Your task to perform on an android device: turn on location history Image 0: 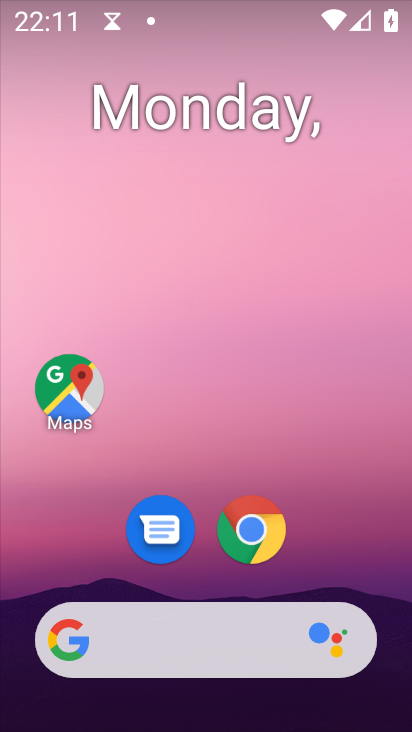
Step 0: drag from (324, 563) to (187, 242)
Your task to perform on an android device: turn on location history Image 1: 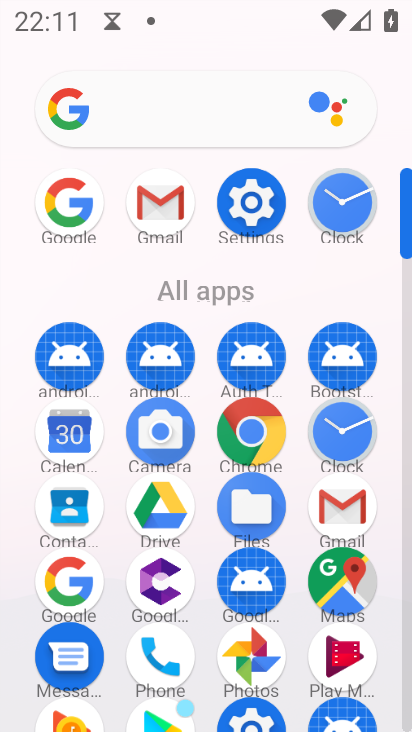
Step 1: click (252, 201)
Your task to perform on an android device: turn on location history Image 2: 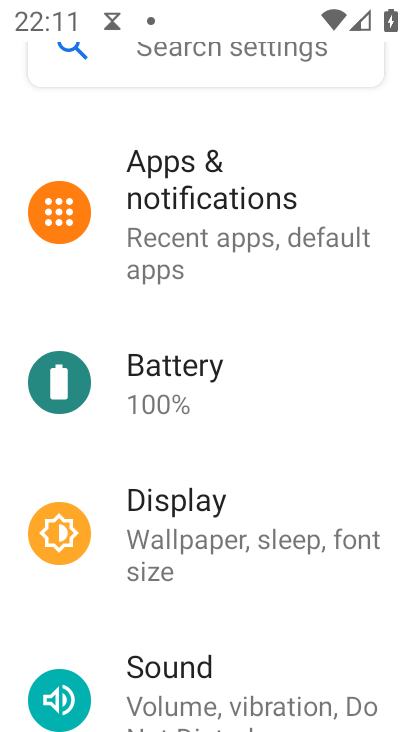
Step 2: drag from (234, 593) to (292, 487)
Your task to perform on an android device: turn on location history Image 3: 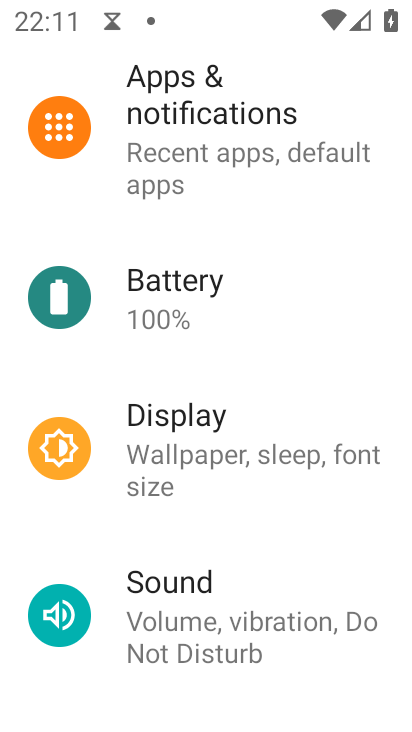
Step 3: drag from (240, 677) to (324, 539)
Your task to perform on an android device: turn on location history Image 4: 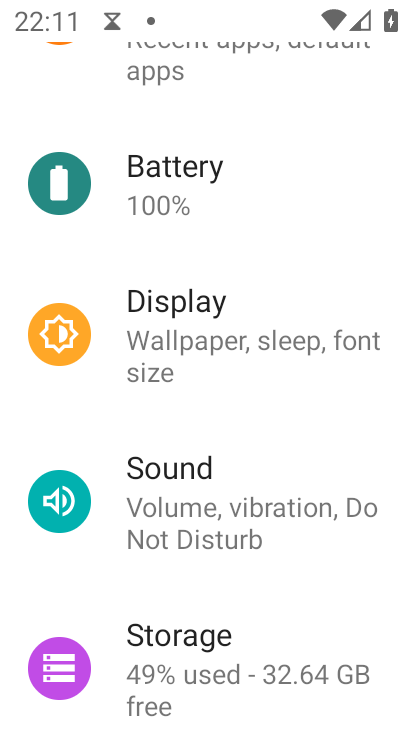
Step 4: drag from (229, 702) to (288, 545)
Your task to perform on an android device: turn on location history Image 5: 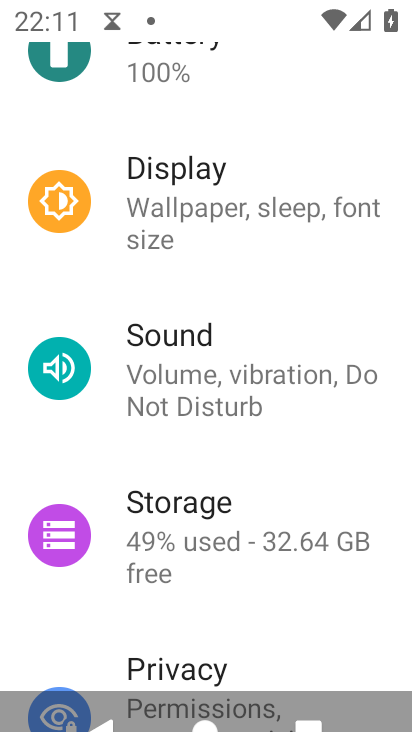
Step 5: drag from (239, 574) to (293, 485)
Your task to perform on an android device: turn on location history Image 6: 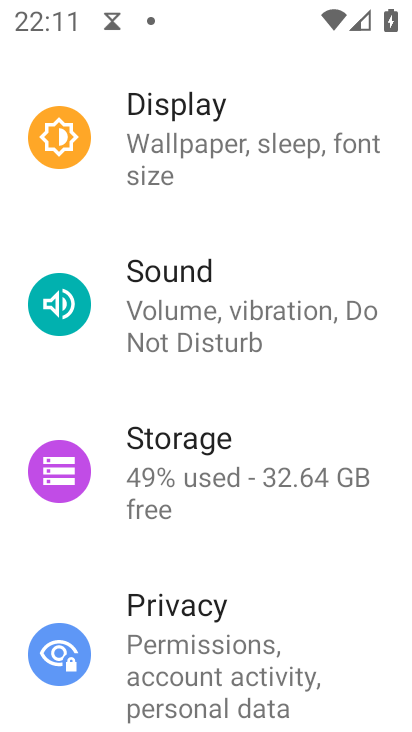
Step 6: drag from (217, 567) to (277, 441)
Your task to perform on an android device: turn on location history Image 7: 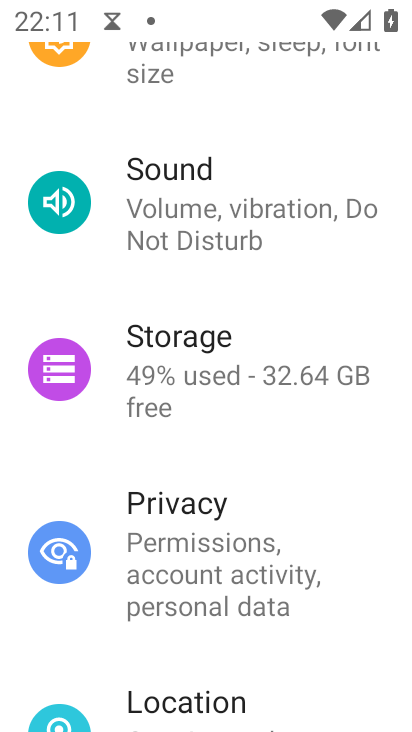
Step 7: drag from (209, 634) to (250, 494)
Your task to perform on an android device: turn on location history Image 8: 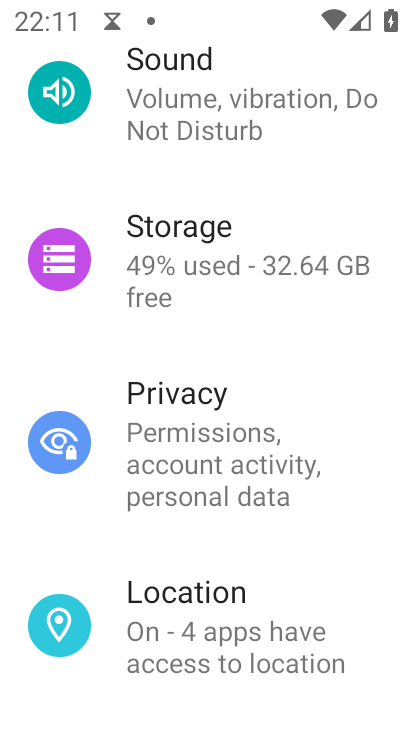
Step 8: click (200, 607)
Your task to perform on an android device: turn on location history Image 9: 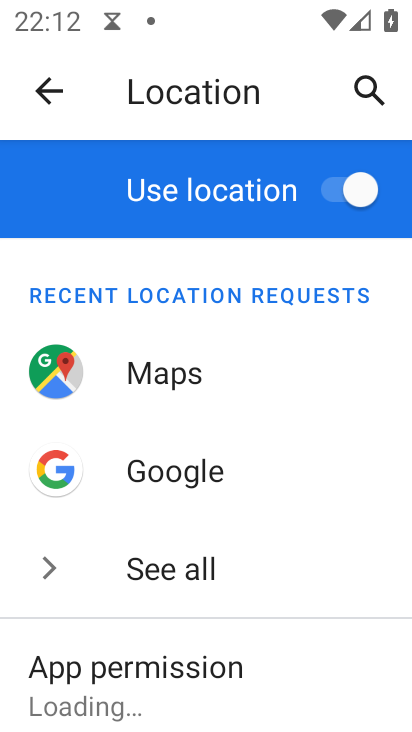
Step 9: drag from (200, 610) to (284, 422)
Your task to perform on an android device: turn on location history Image 10: 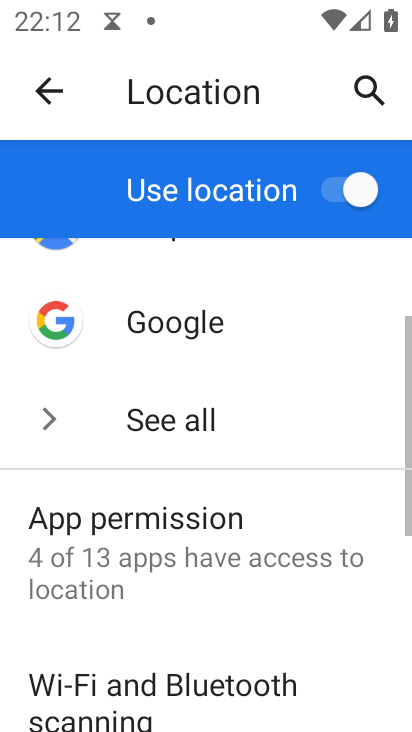
Step 10: drag from (187, 614) to (296, 434)
Your task to perform on an android device: turn on location history Image 11: 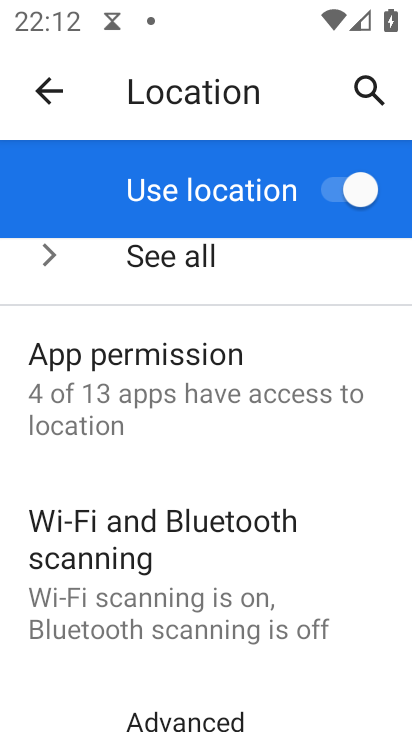
Step 11: drag from (175, 652) to (282, 438)
Your task to perform on an android device: turn on location history Image 12: 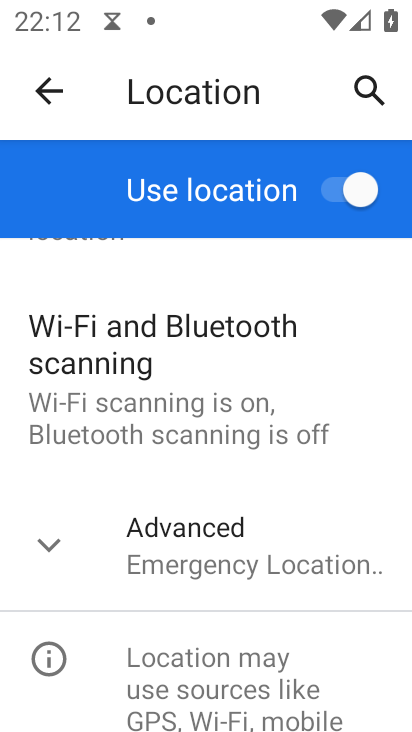
Step 12: click (212, 566)
Your task to perform on an android device: turn on location history Image 13: 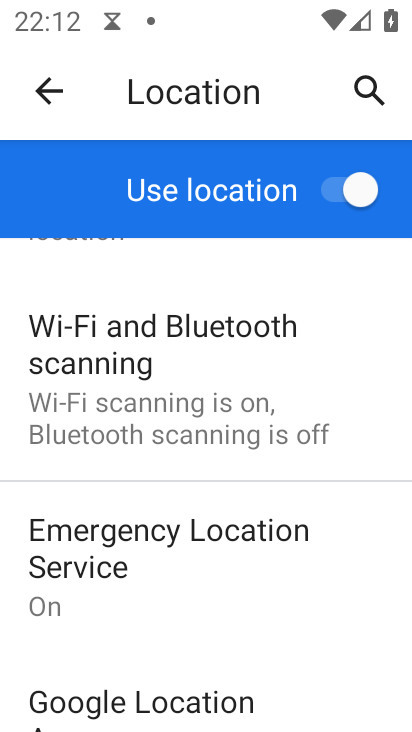
Step 13: task complete